Your task to perform on an android device: turn off sleep mode Image 0: 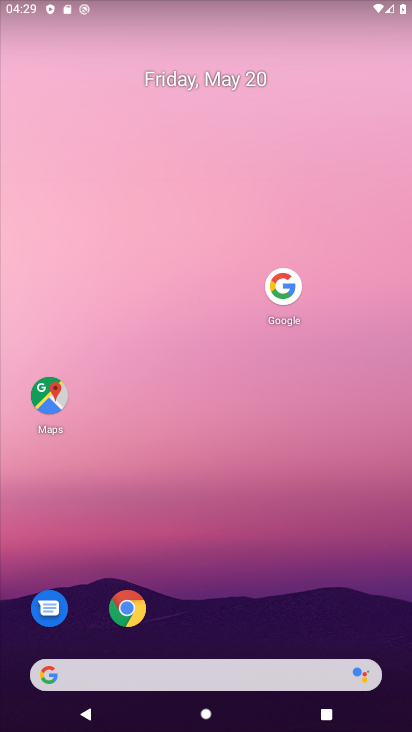
Step 0: drag from (200, 678) to (102, 62)
Your task to perform on an android device: turn off sleep mode Image 1: 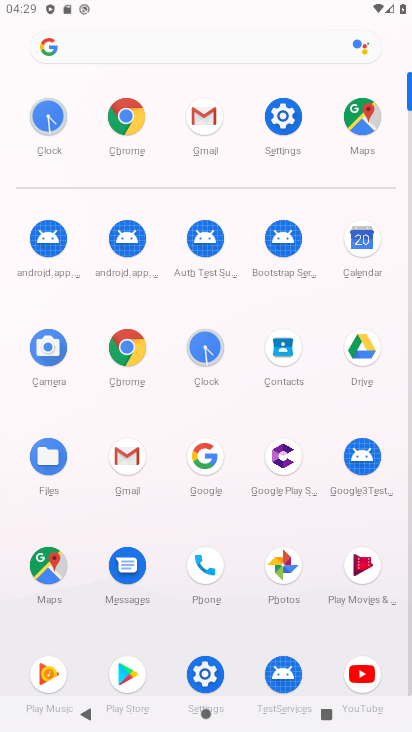
Step 1: click (199, 673)
Your task to perform on an android device: turn off sleep mode Image 2: 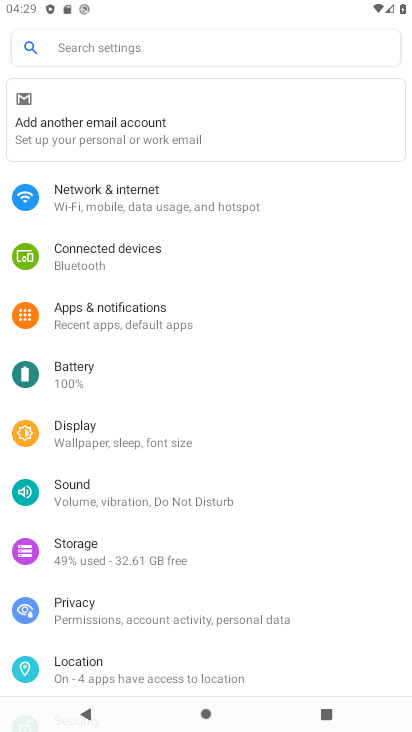
Step 2: task complete